Your task to perform on an android device: change notification settings in the gmail app Image 0: 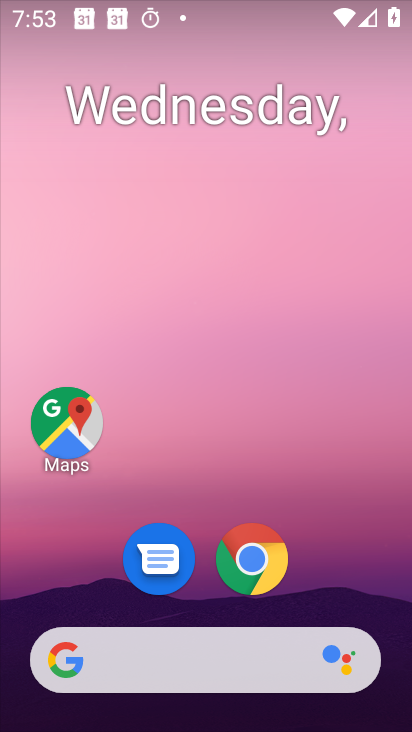
Step 0: drag from (341, 636) to (324, 3)
Your task to perform on an android device: change notification settings in the gmail app Image 1: 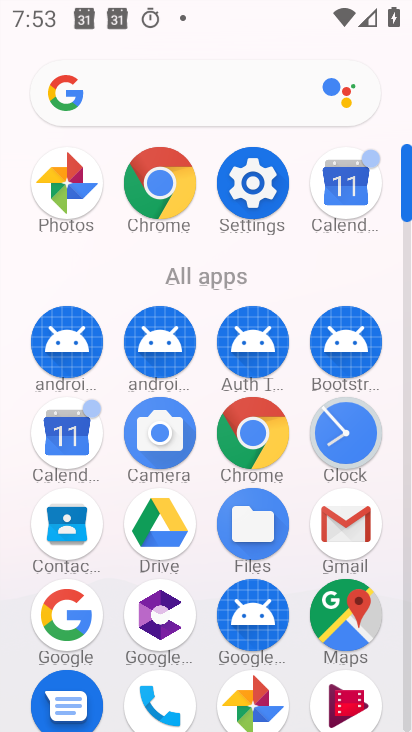
Step 1: click (348, 515)
Your task to perform on an android device: change notification settings in the gmail app Image 2: 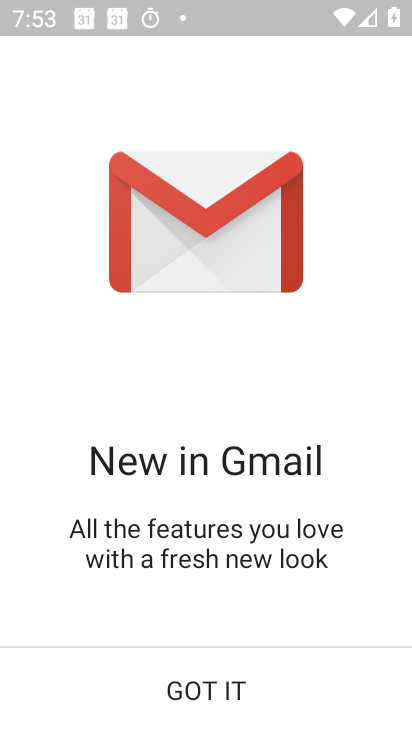
Step 2: click (221, 690)
Your task to perform on an android device: change notification settings in the gmail app Image 3: 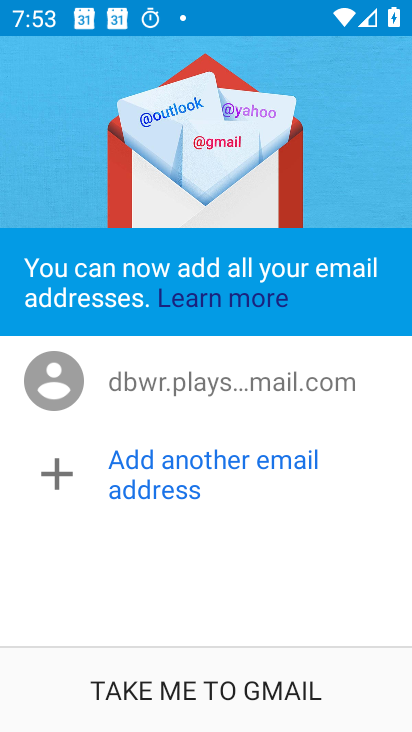
Step 3: click (211, 696)
Your task to perform on an android device: change notification settings in the gmail app Image 4: 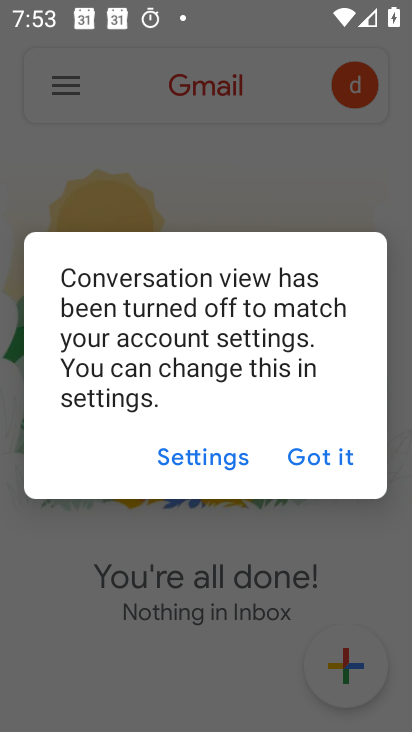
Step 4: click (332, 465)
Your task to perform on an android device: change notification settings in the gmail app Image 5: 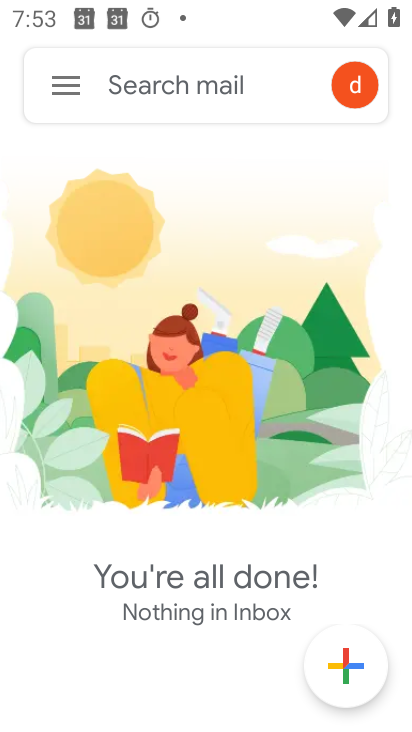
Step 5: click (63, 78)
Your task to perform on an android device: change notification settings in the gmail app Image 6: 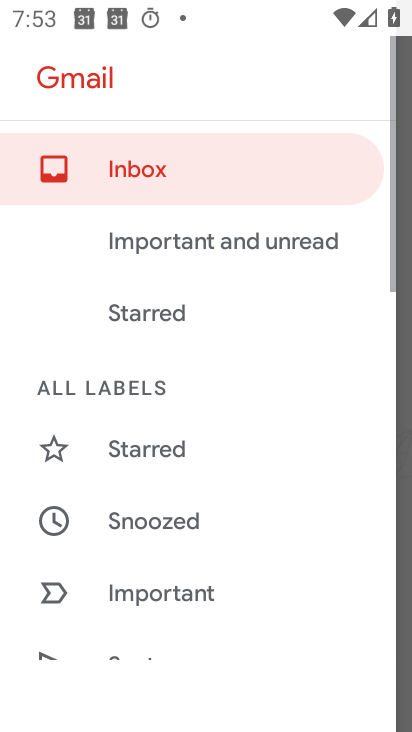
Step 6: drag from (267, 531) to (240, 94)
Your task to perform on an android device: change notification settings in the gmail app Image 7: 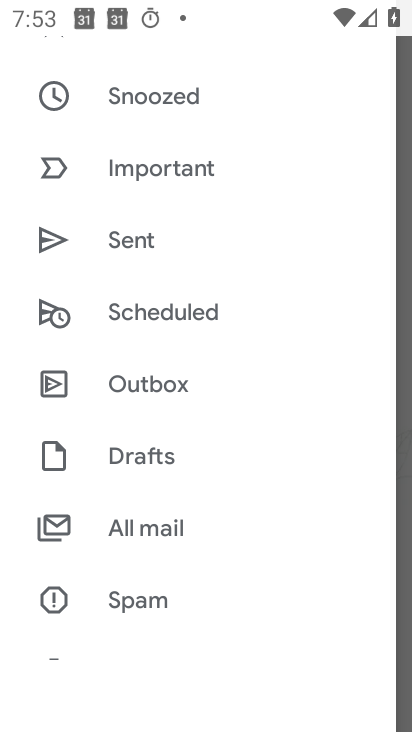
Step 7: drag from (236, 496) to (209, 130)
Your task to perform on an android device: change notification settings in the gmail app Image 8: 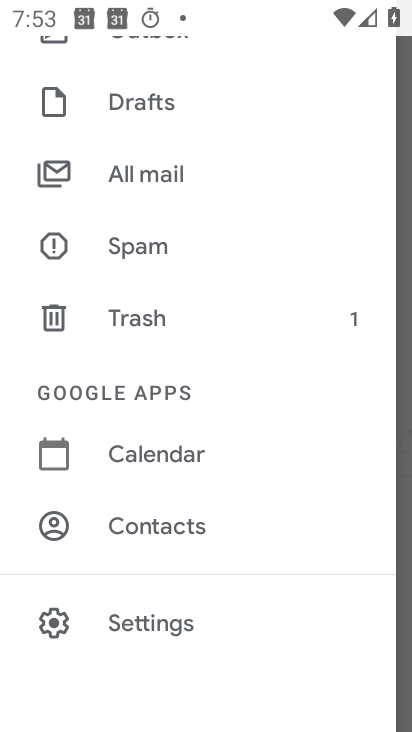
Step 8: drag from (192, 558) to (180, 301)
Your task to perform on an android device: change notification settings in the gmail app Image 9: 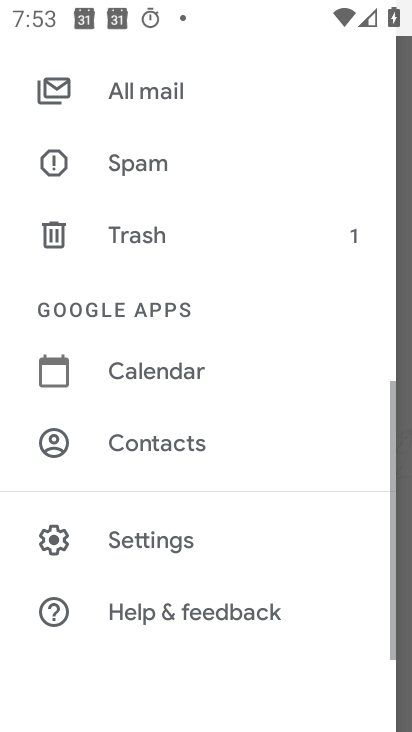
Step 9: click (137, 543)
Your task to perform on an android device: change notification settings in the gmail app Image 10: 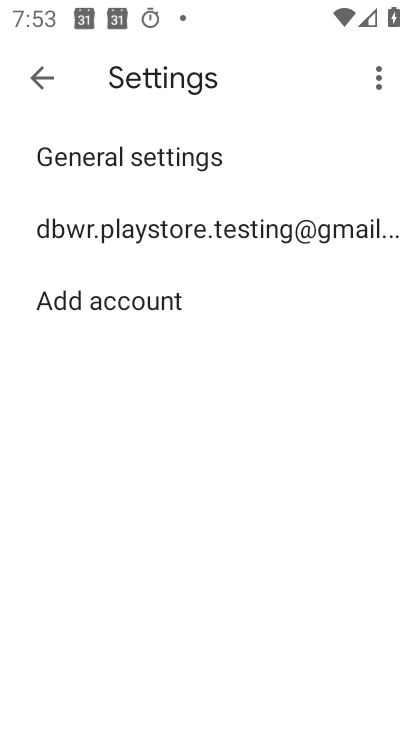
Step 10: click (101, 171)
Your task to perform on an android device: change notification settings in the gmail app Image 11: 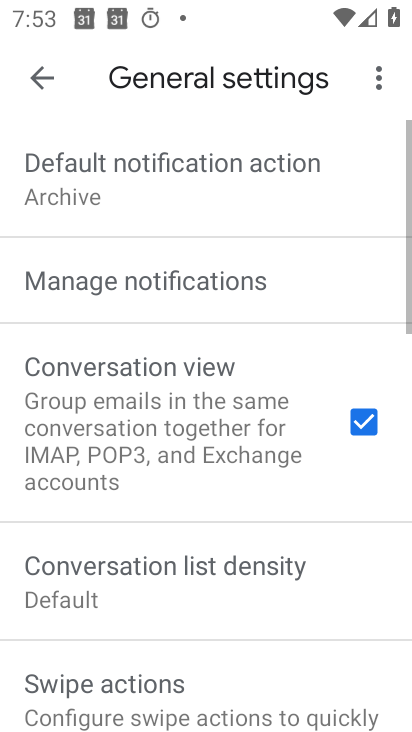
Step 11: click (122, 292)
Your task to perform on an android device: change notification settings in the gmail app Image 12: 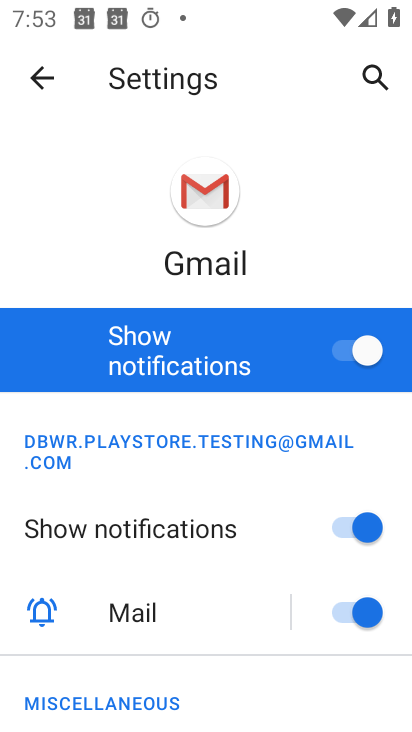
Step 12: click (350, 358)
Your task to perform on an android device: change notification settings in the gmail app Image 13: 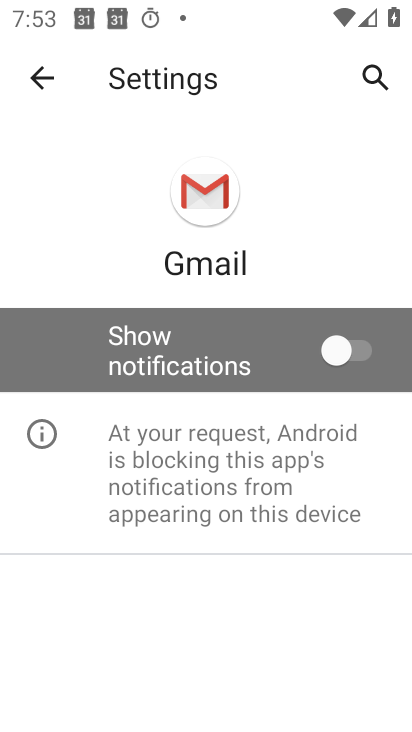
Step 13: task complete